Your task to perform on an android device: change your default location settings in chrome Image 0: 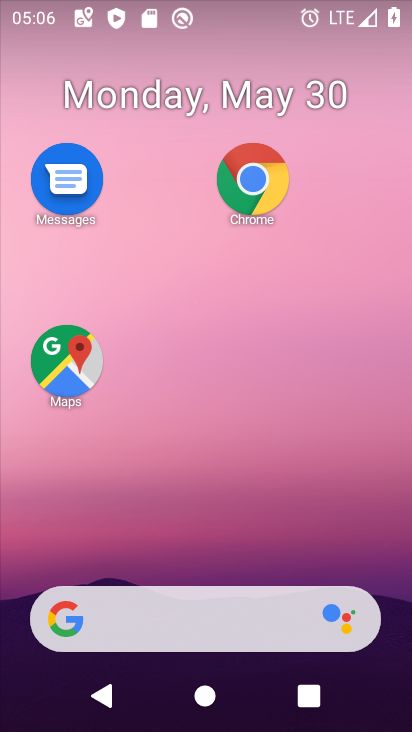
Step 0: drag from (180, 539) to (173, 3)
Your task to perform on an android device: change your default location settings in chrome Image 1: 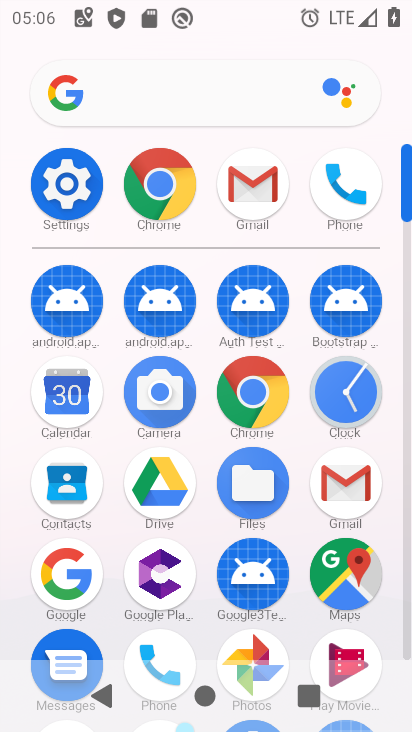
Step 1: click (254, 406)
Your task to perform on an android device: change your default location settings in chrome Image 2: 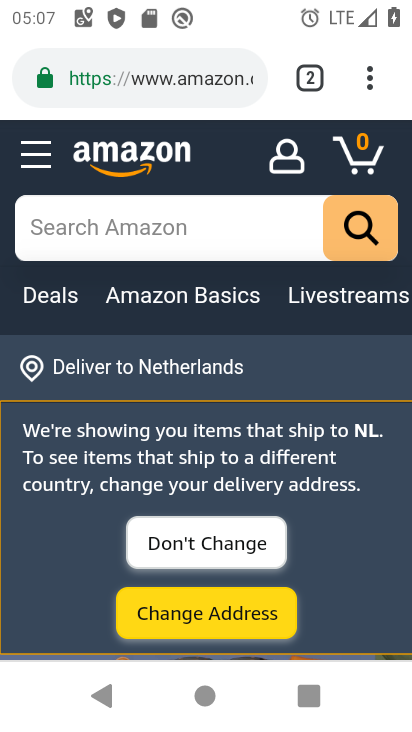
Step 2: click (373, 84)
Your task to perform on an android device: change your default location settings in chrome Image 3: 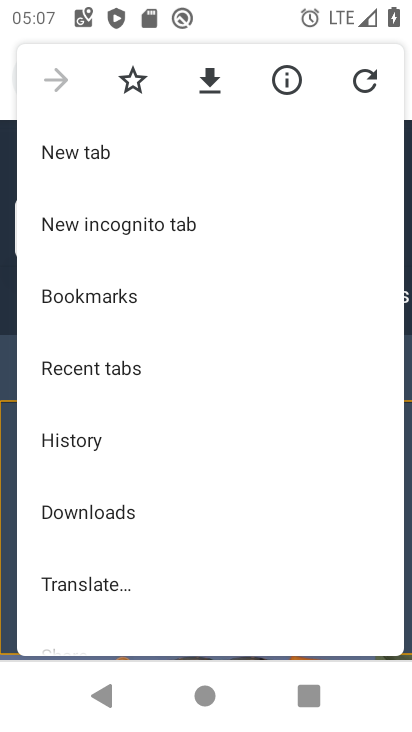
Step 3: drag from (95, 577) to (37, 76)
Your task to perform on an android device: change your default location settings in chrome Image 4: 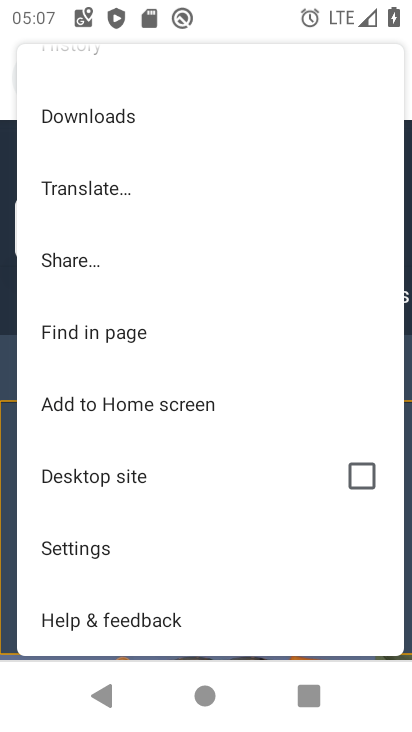
Step 4: click (90, 555)
Your task to perform on an android device: change your default location settings in chrome Image 5: 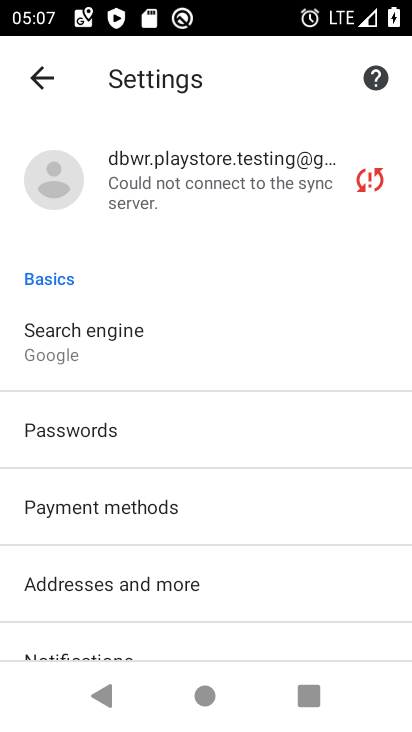
Step 5: drag from (90, 565) to (88, 258)
Your task to perform on an android device: change your default location settings in chrome Image 6: 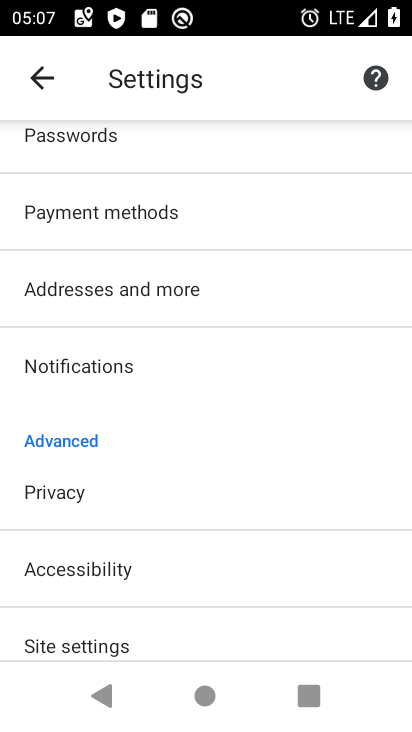
Step 6: click (82, 642)
Your task to perform on an android device: change your default location settings in chrome Image 7: 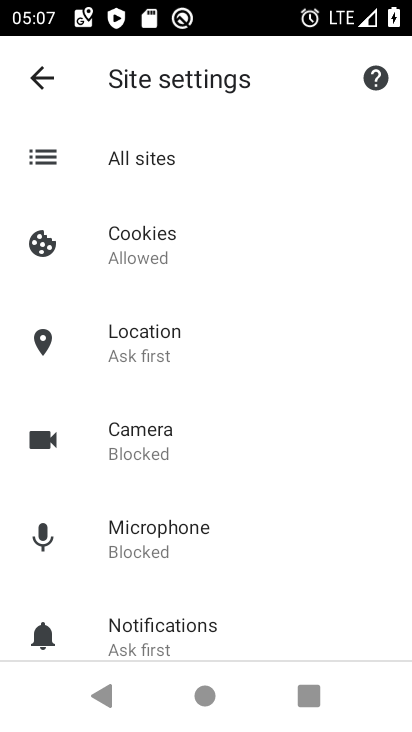
Step 7: click (177, 366)
Your task to perform on an android device: change your default location settings in chrome Image 8: 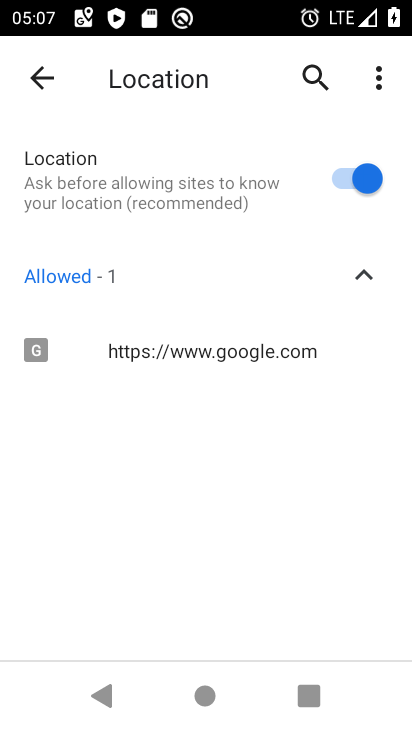
Step 8: click (343, 179)
Your task to perform on an android device: change your default location settings in chrome Image 9: 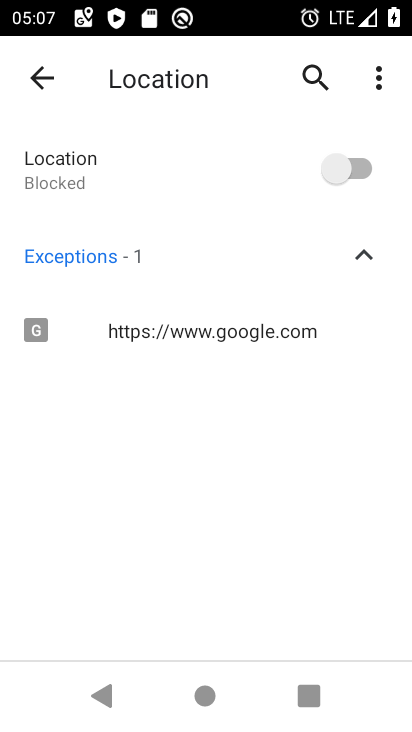
Step 9: task complete